Your task to perform on an android device: open app "Paramount+ | Peak Streaming" Image 0: 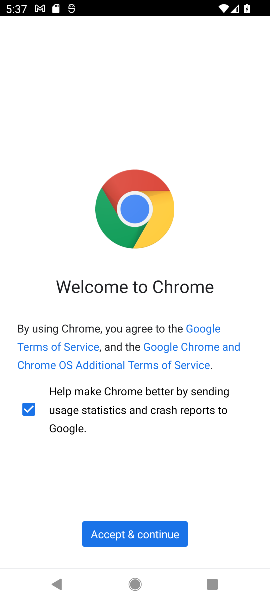
Step 0: press home button
Your task to perform on an android device: open app "Paramount+ | Peak Streaming" Image 1: 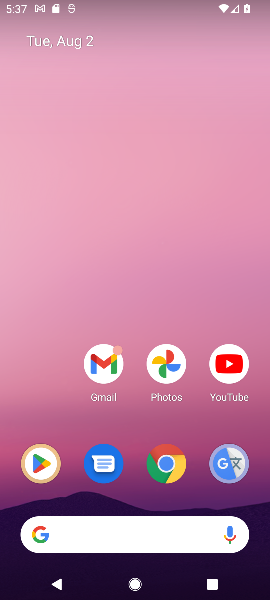
Step 1: click (37, 471)
Your task to perform on an android device: open app "Paramount+ | Peak Streaming" Image 2: 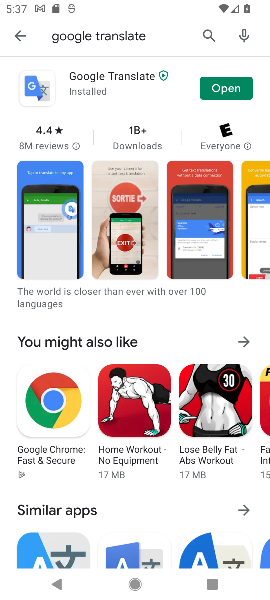
Step 2: click (207, 35)
Your task to perform on an android device: open app "Paramount+ | Peak Streaming" Image 3: 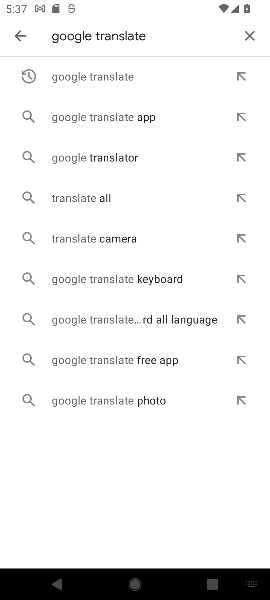
Step 3: click (249, 33)
Your task to perform on an android device: open app "Paramount+ | Peak Streaming" Image 4: 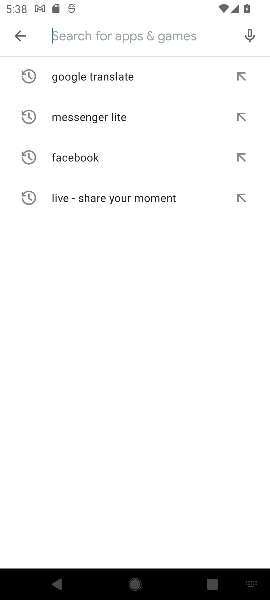
Step 4: type "Paramount+ | Peak Streaming"
Your task to perform on an android device: open app "Paramount+ | Peak Streaming" Image 5: 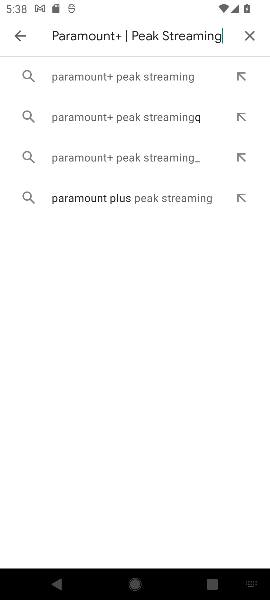
Step 5: click (108, 77)
Your task to perform on an android device: open app "Paramount+ | Peak Streaming" Image 6: 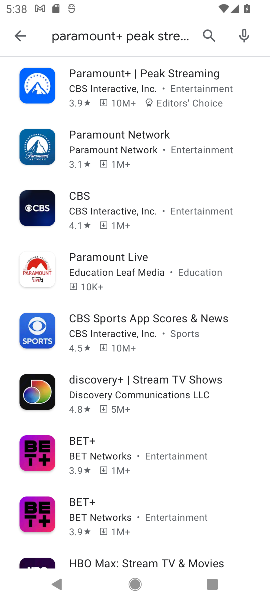
Step 6: click (138, 77)
Your task to perform on an android device: open app "Paramount+ | Peak Streaming" Image 7: 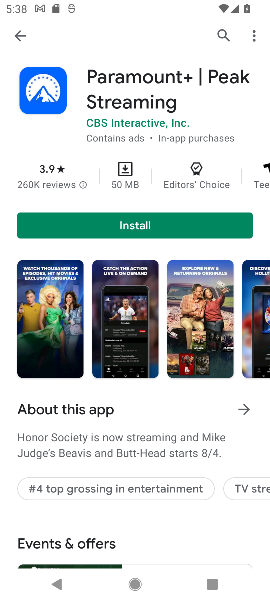
Step 7: task complete